Your task to perform on an android device: Play the last video I watched on Youtube Image 0: 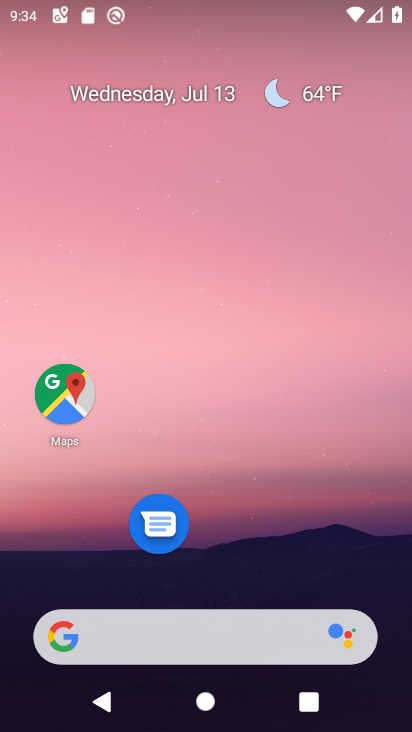
Step 0: drag from (255, 599) to (197, 100)
Your task to perform on an android device: Play the last video I watched on Youtube Image 1: 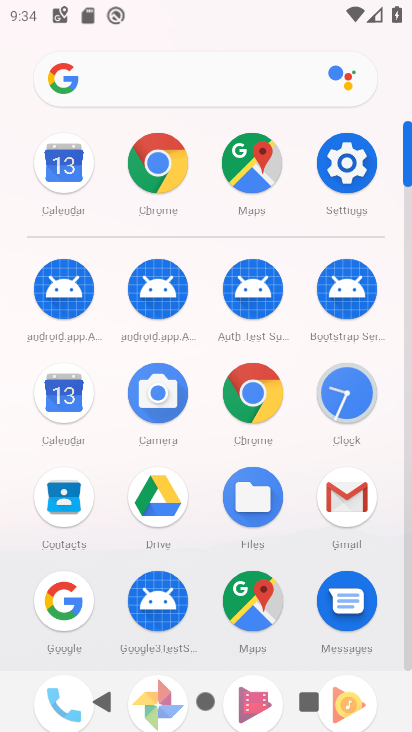
Step 1: drag from (212, 574) to (188, 95)
Your task to perform on an android device: Play the last video I watched on Youtube Image 2: 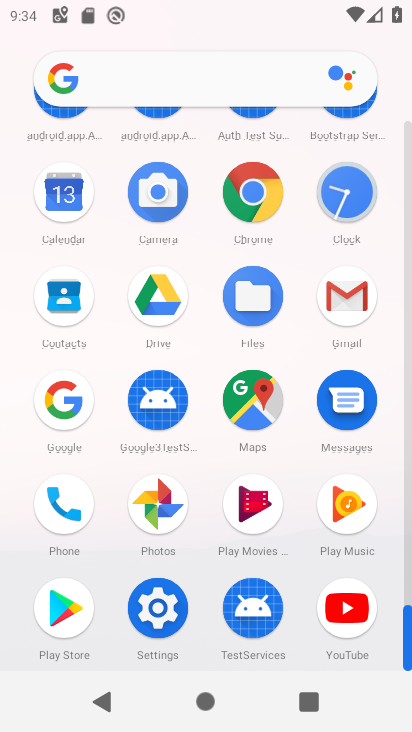
Step 2: click (342, 610)
Your task to perform on an android device: Play the last video I watched on Youtube Image 3: 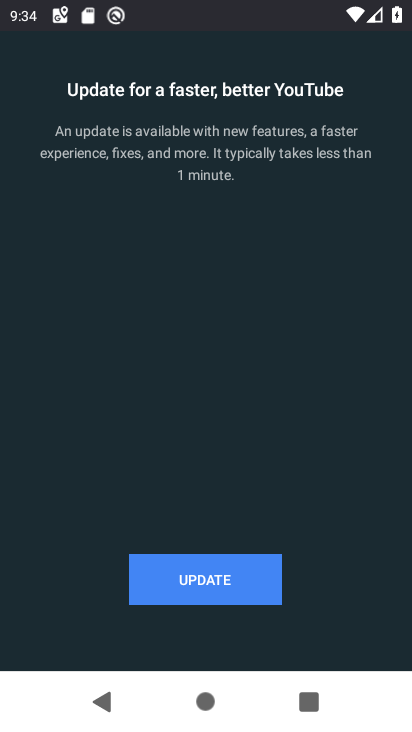
Step 3: click (260, 570)
Your task to perform on an android device: Play the last video I watched on Youtube Image 4: 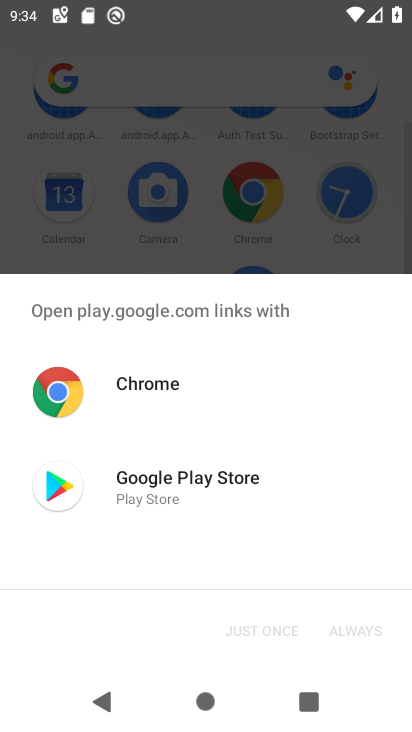
Step 4: click (167, 499)
Your task to perform on an android device: Play the last video I watched on Youtube Image 5: 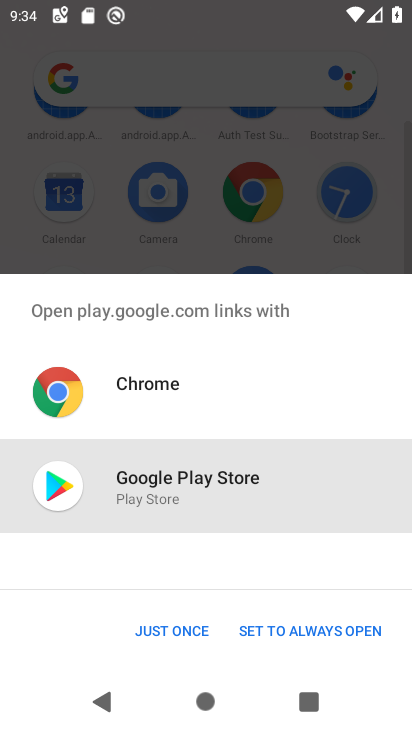
Step 5: drag from (165, 625) to (234, 625)
Your task to perform on an android device: Play the last video I watched on Youtube Image 6: 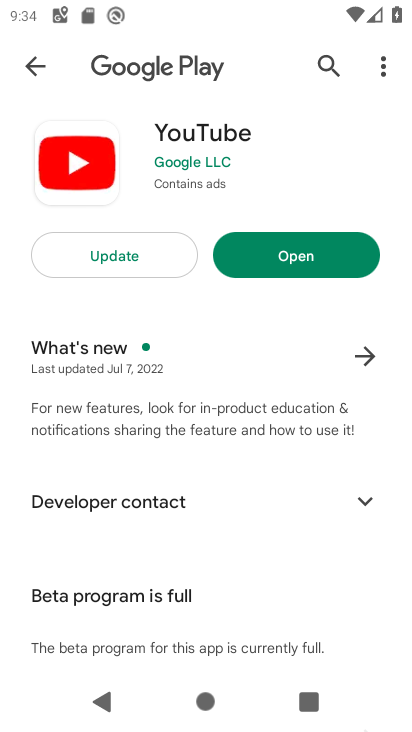
Step 6: click (136, 262)
Your task to perform on an android device: Play the last video I watched on Youtube Image 7: 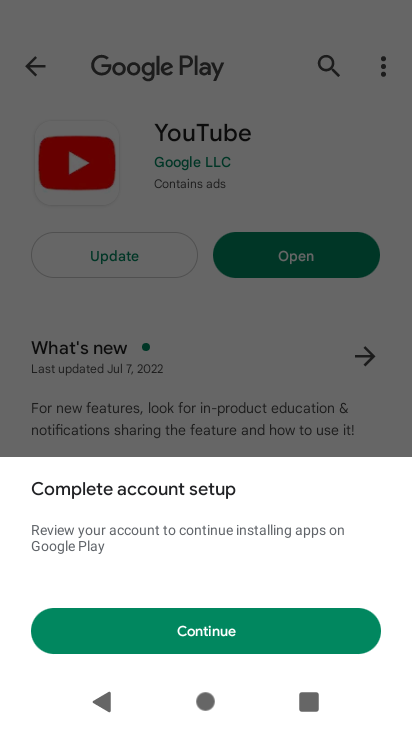
Step 7: click (241, 624)
Your task to perform on an android device: Play the last video I watched on Youtube Image 8: 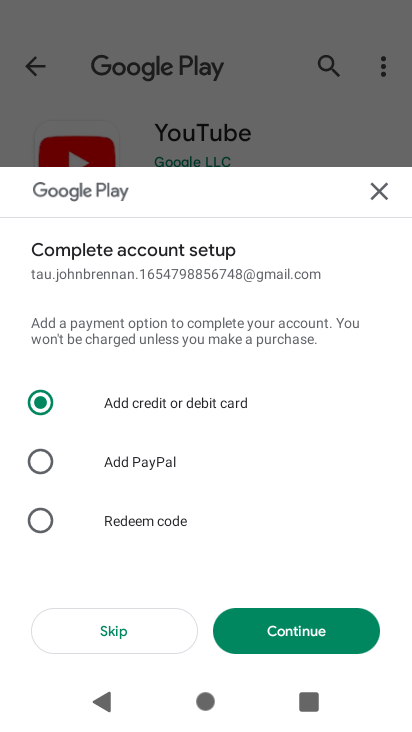
Step 8: click (117, 617)
Your task to perform on an android device: Play the last video I watched on Youtube Image 9: 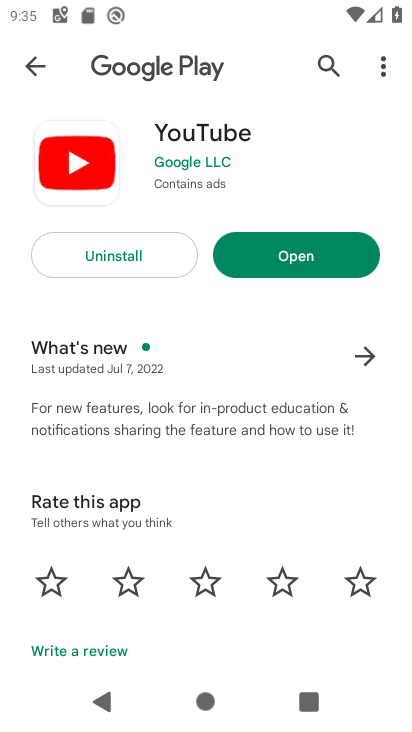
Step 9: click (341, 264)
Your task to perform on an android device: Play the last video I watched on Youtube Image 10: 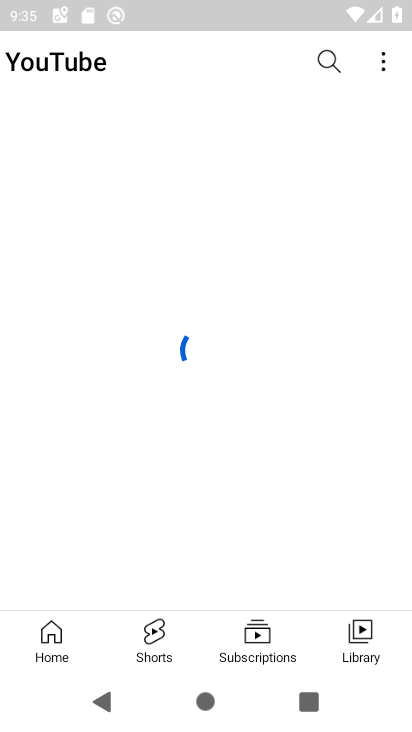
Step 10: click (360, 632)
Your task to perform on an android device: Play the last video I watched on Youtube Image 11: 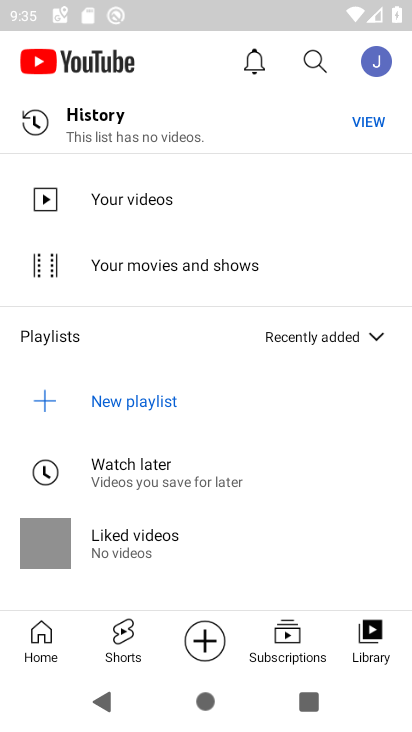
Step 11: click (84, 114)
Your task to perform on an android device: Play the last video I watched on Youtube Image 12: 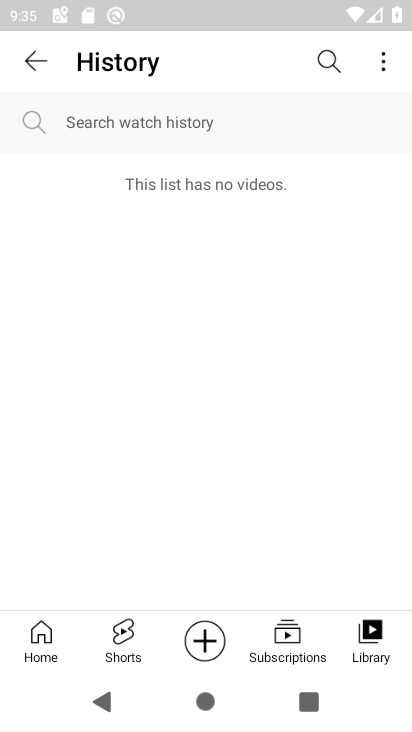
Step 12: task complete